Your task to perform on an android device: refresh tabs in the chrome app Image 0: 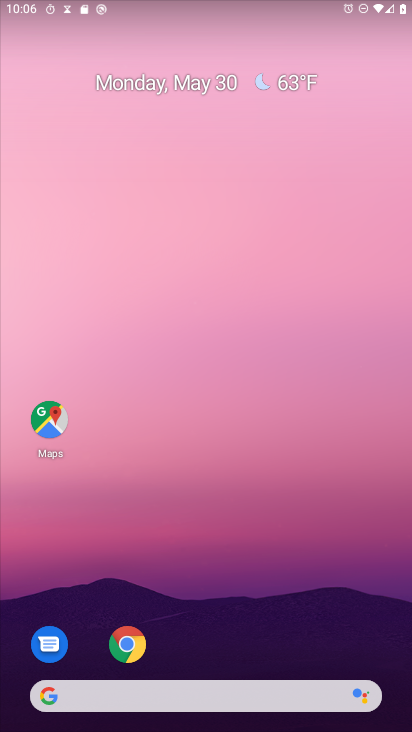
Step 0: click (128, 641)
Your task to perform on an android device: refresh tabs in the chrome app Image 1: 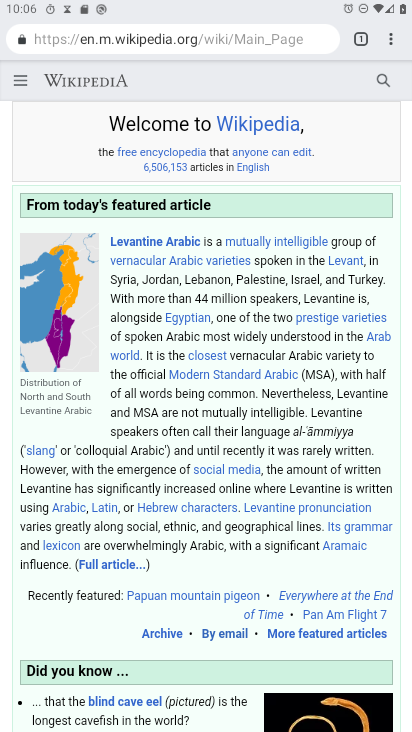
Step 1: click (387, 36)
Your task to perform on an android device: refresh tabs in the chrome app Image 2: 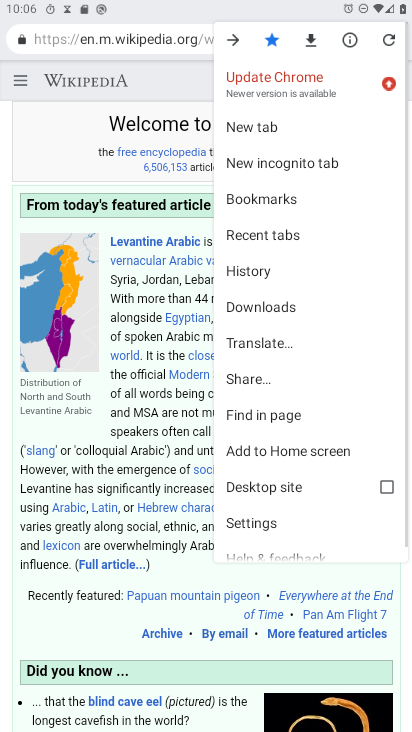
Step 2: click (390, 41)
Your task to perform on an android device: refresh tabs in the chrome app Image 3: 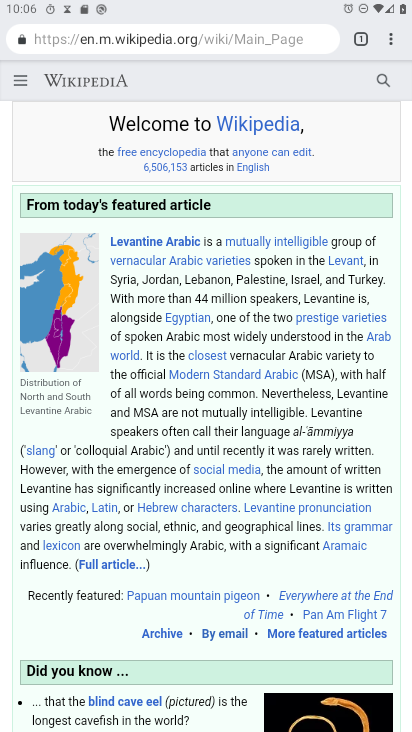
Step 3: task complete